Your task to perform on an android device: Open Chrome and go to settings Image 0: 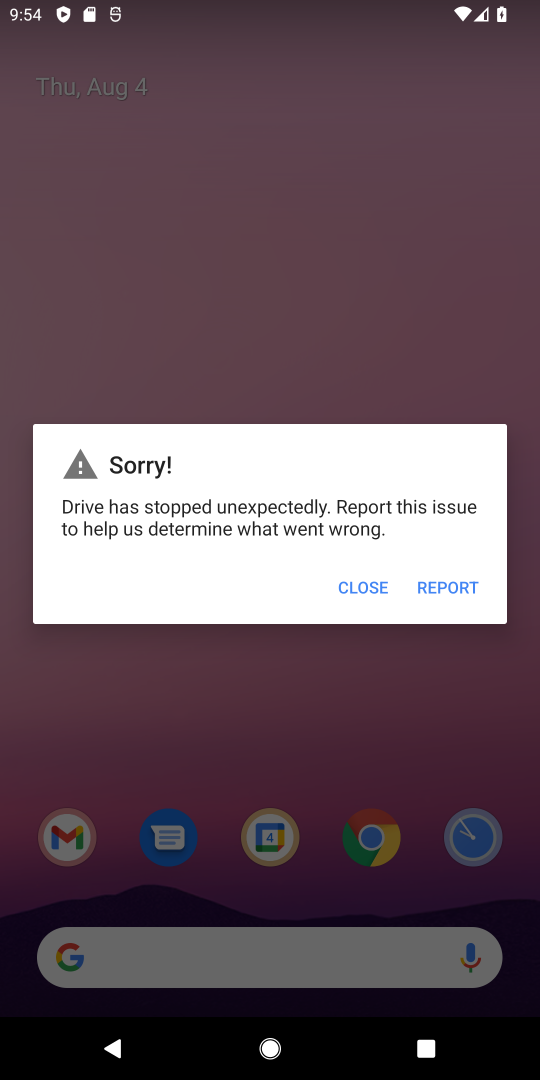
Step 0: click (372, 582)
Your task to perform on an android device: Open Chrome and go to settings Image 1: 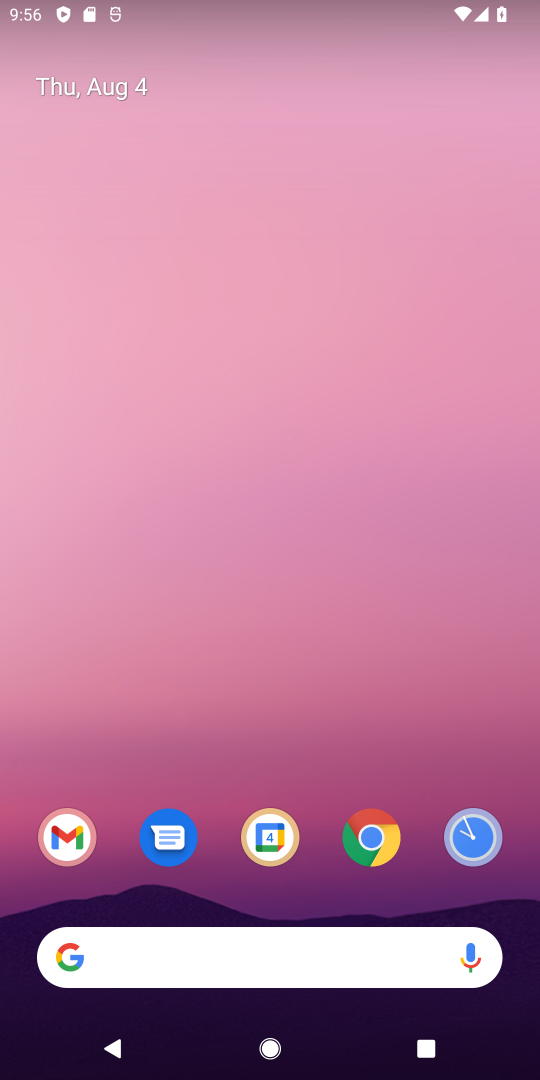
Step 1: drag from (363, 752) to (165, 50)
Your task to perform on an android device: Open Chrome and go to settings Image 2: 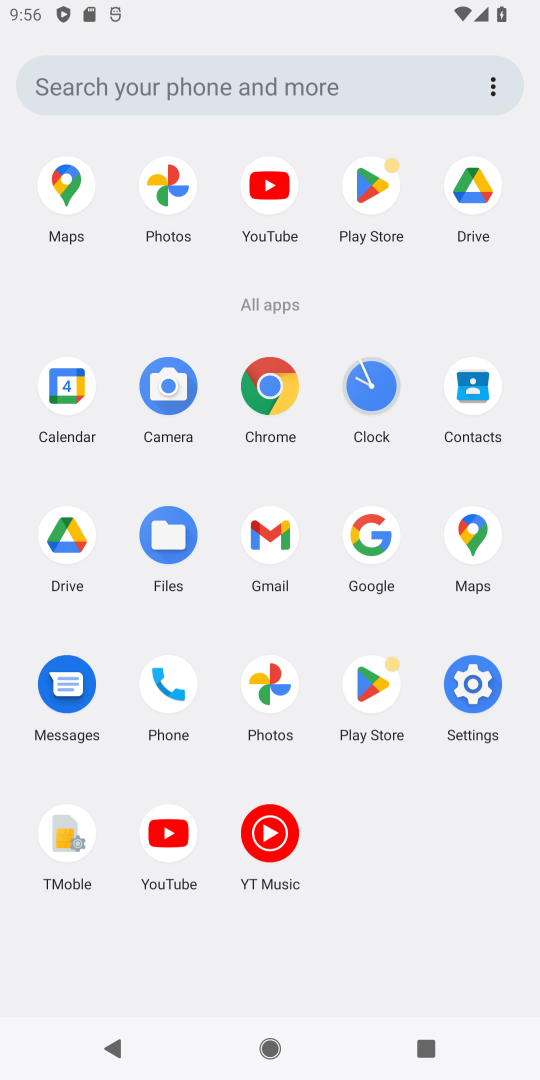
Step 2: click (264, 406)
Your task to perform on an android device: Open Chrome and go to settings Image 3: 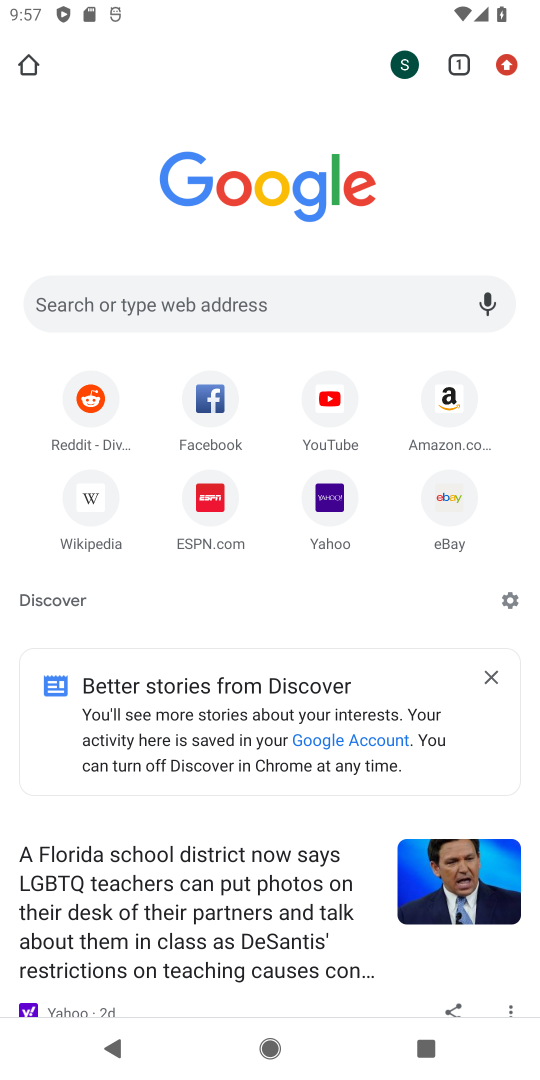
Step 3: click (510, 61)
Your task to perform on an android device: Open Chrome and go to settings Image 4: 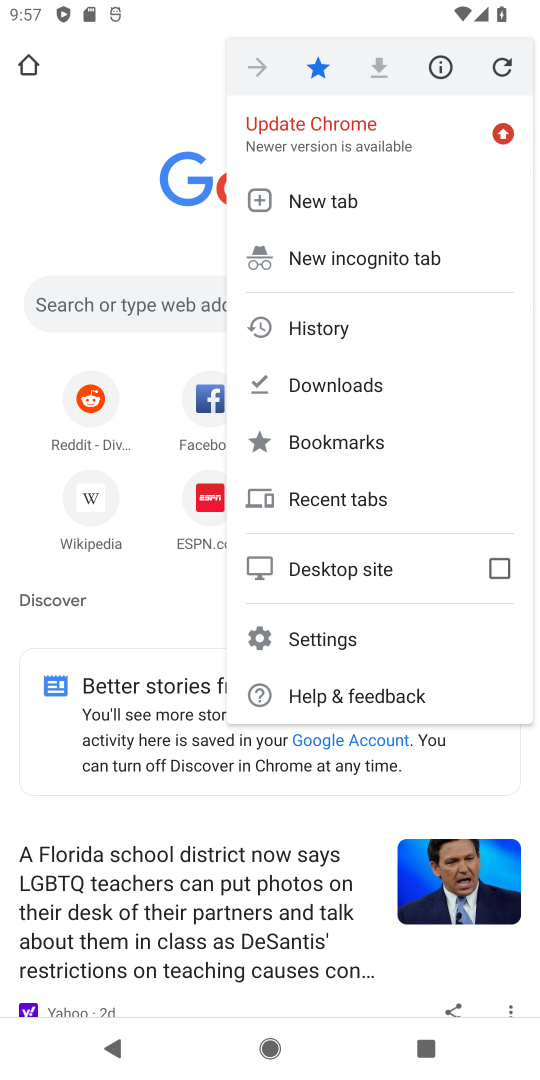
Step 4: click (306, 646)
Your task to perform on an android device: Open Chrome and go to settings Image 5: 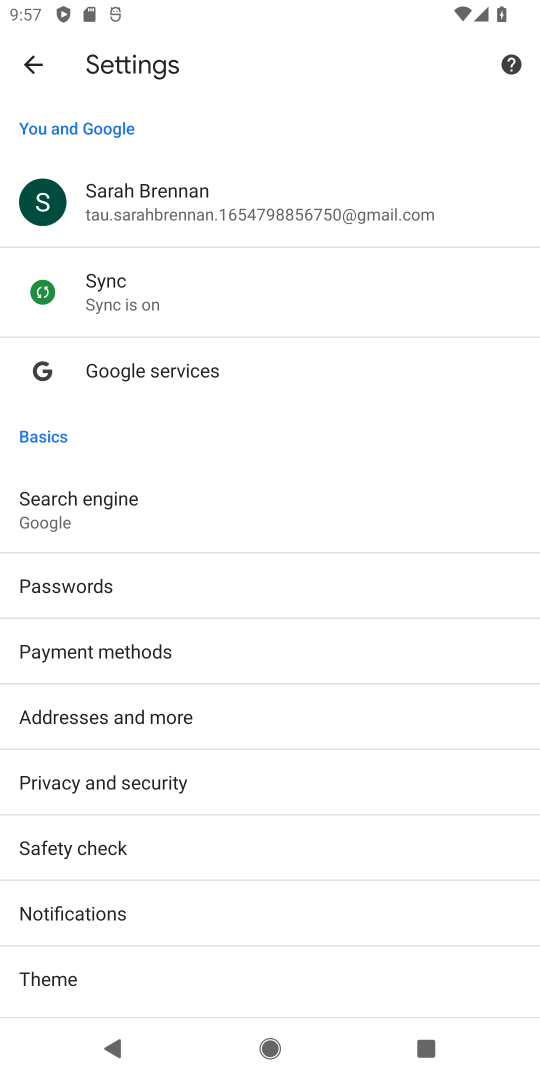
Step 5: task complete